Your task to perform on an android device: Search for razer blackwidow on amazon.com, select the first entry, and add it to the cart. Image 0: 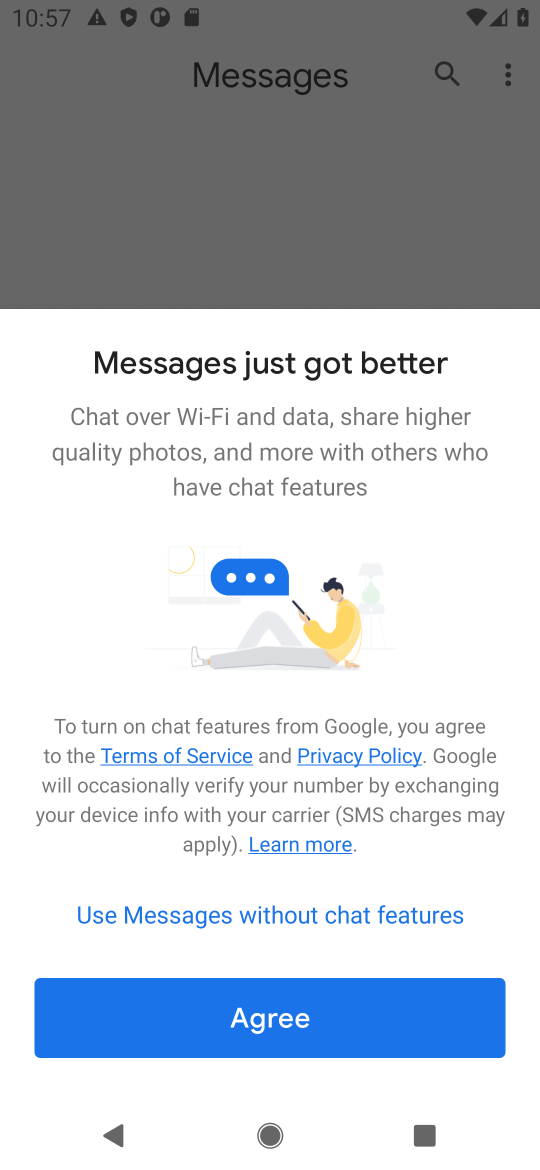
Step 0: press home button
Your task to perform on an android device: Search for razer blackwidow on amazon.com, select the first entry, and add it to the cart. Image 1: 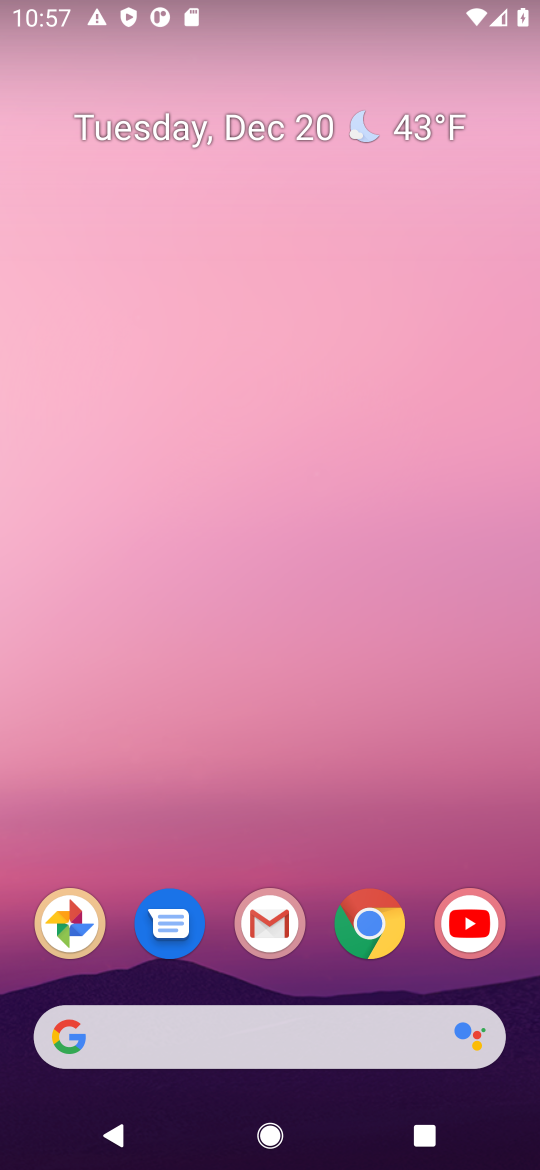
Step 1: click (385, 913)
Your task to perform on an android device: Search for razer blackwidow on amazon.com, select the first entry, and add it to the cart. Image 2: 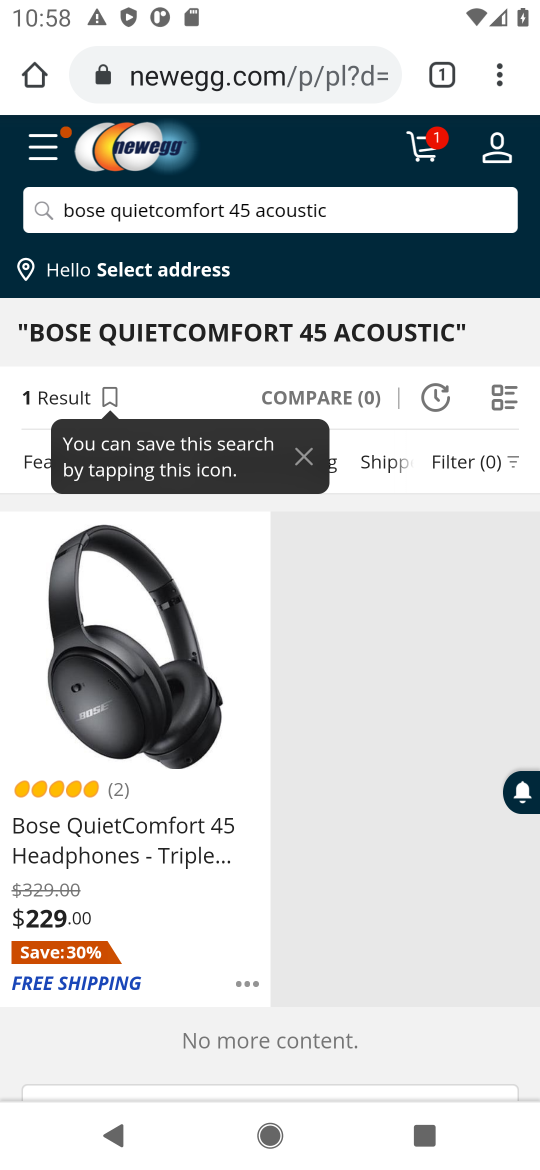
Step 2: task complete